Your task to perform on an android device: toggle improve location accuracy Image 0: 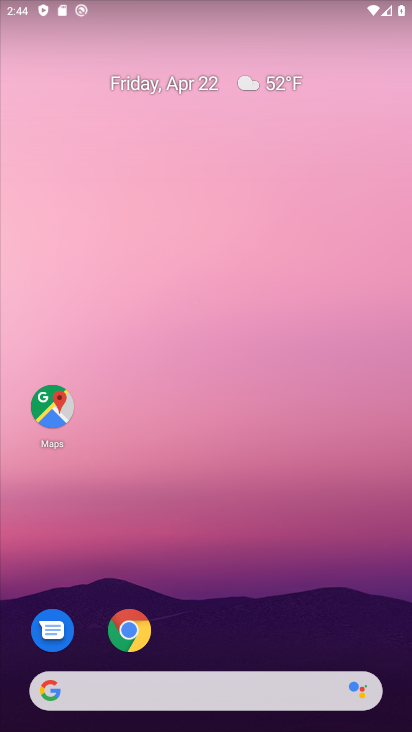
Step 0: drag from (299, 632) to (247, 147)
Your task to perform on an android device: toggle improve location accuracy Image 1: 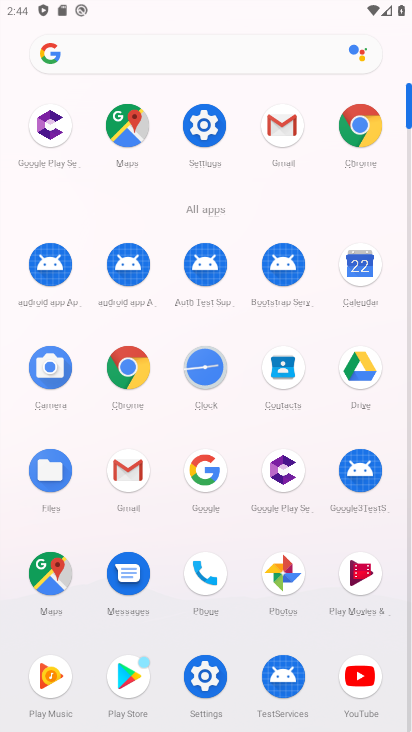
Step 1: click (206, 674)
Your task to perform on an android device: toggle improve location accuracy Image 2: 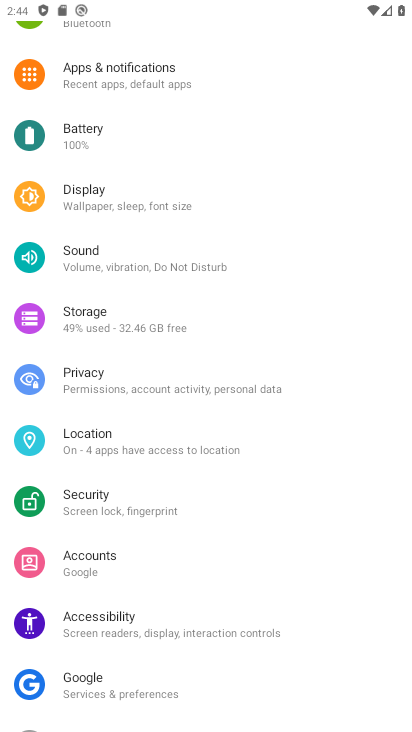
Step 2: click (80, 431)
Your task to perform on an android device: toggle improve location accuracy Image 3: 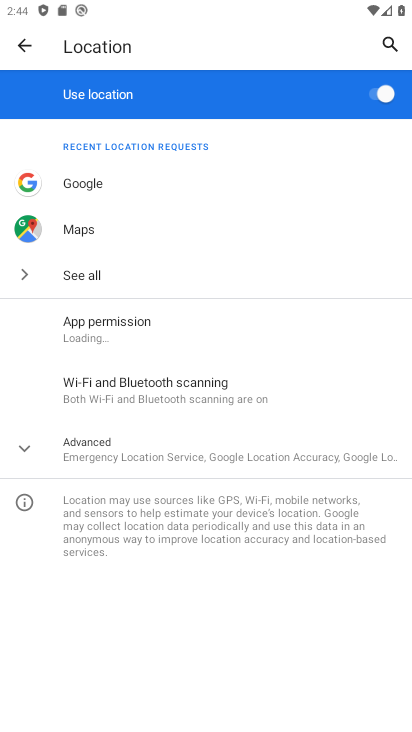
Step 3: click (22, 446)
Your task to perform on an android device: toggle improve location accuracy Image 4: 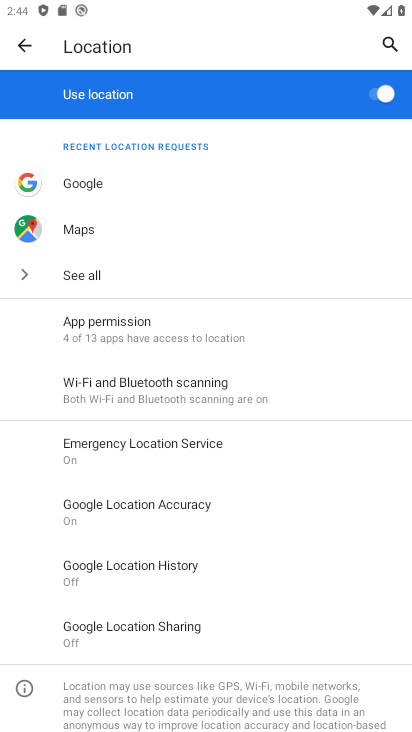
Step 4: click (131, 499)
Your task to perform on an android device: toggle improve location accuracy Image 5: 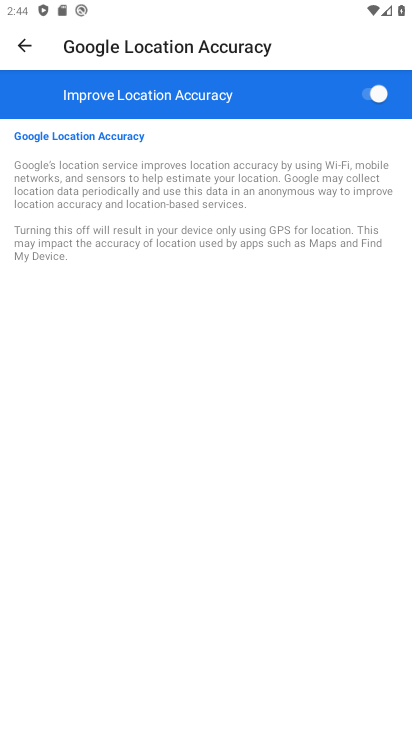
Step 5: click (367, 88)
Your task to perform on an android device: toggle improve location accuracy Image 6: 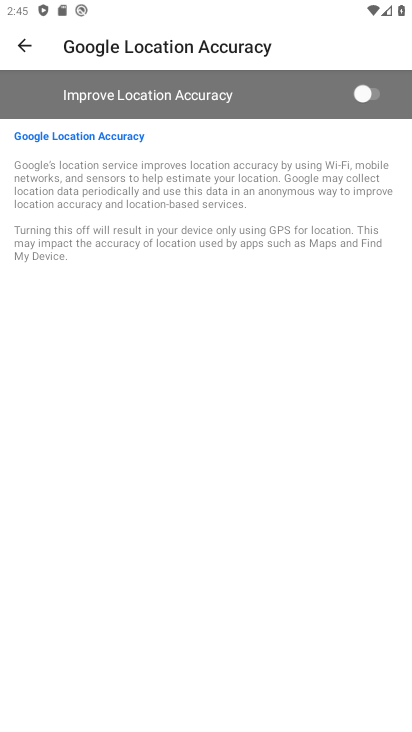
Step 6: task complete